Your task to perform on an android device: Open Android settings Image 0: 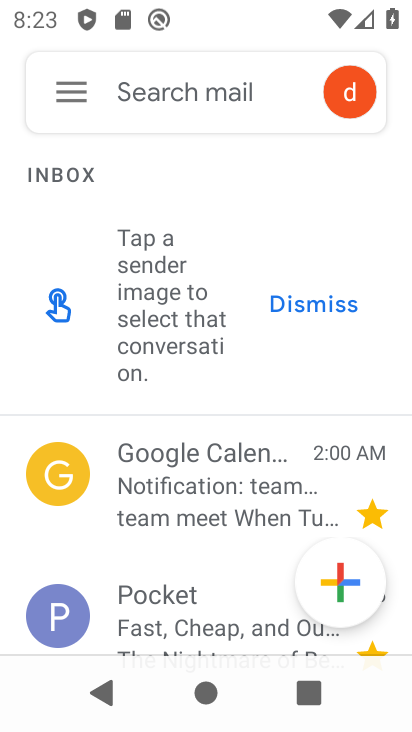
Step 0: press back button
Your task to perform on an android device: Open Android settings Image 1: 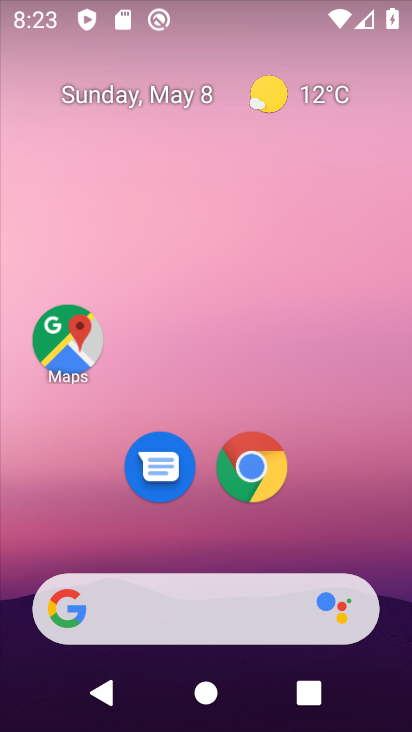
Step 1: drag from (188, 532) to (285, 4)
Your task to perform on an android device: Open Android settings Image 2: 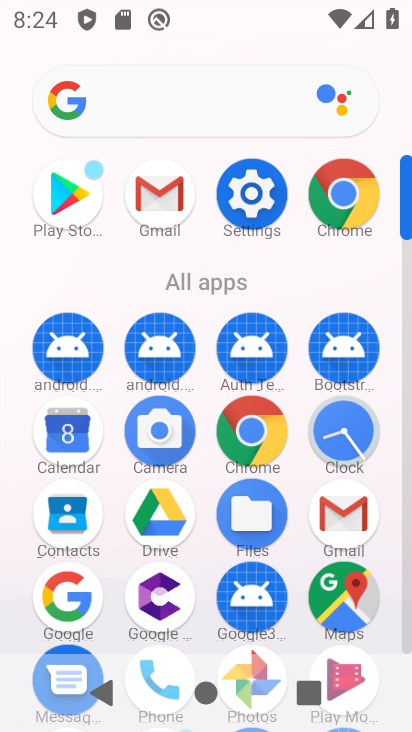
Step 2: click (258, 195)
Your task to perform on an android device: Open Android settings Image 3: 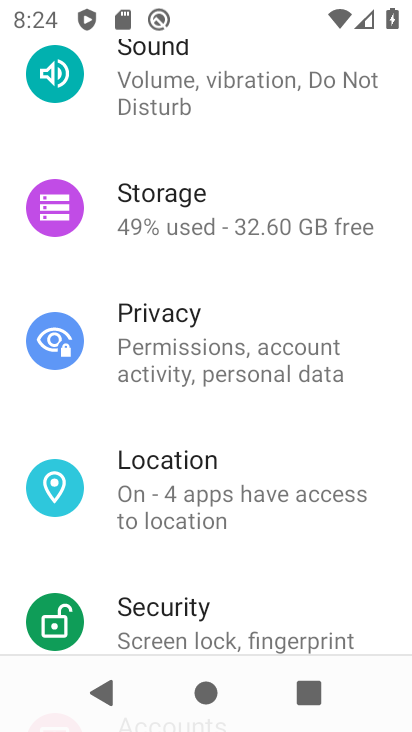
Step 3: drag from (165, 568) to (250, 75)
Your task to perform on an android device: Open Android settings Image 4: 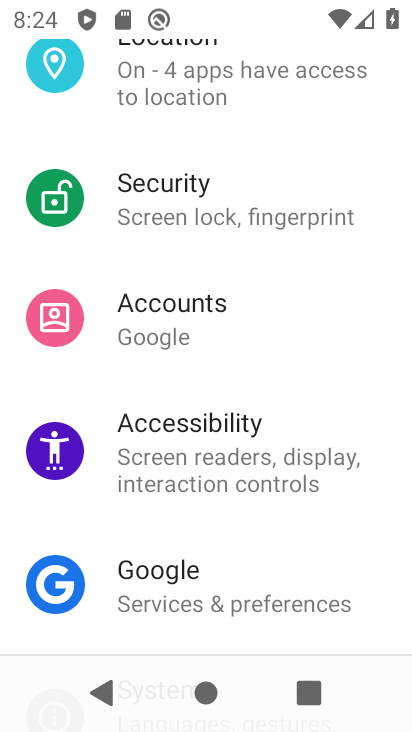
Step 4: drag from (197, 385) to (263, 60)
Your task to perform on an android device: Open Android settings Image 5: 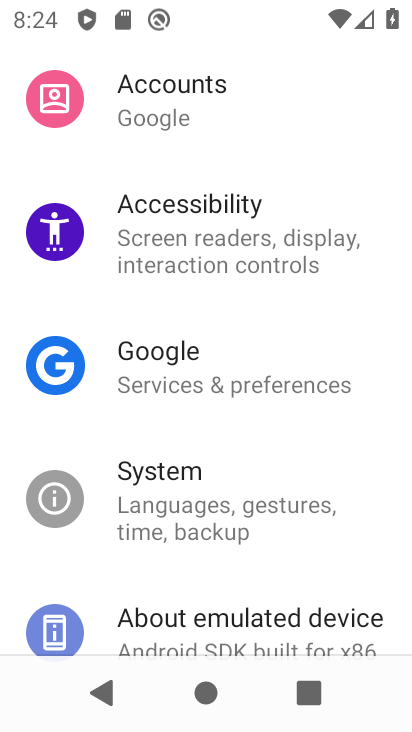
Step 5: drag from (176, 564) to (288, 40)
Your task to perform on an android device: Open Android settings Image 6: 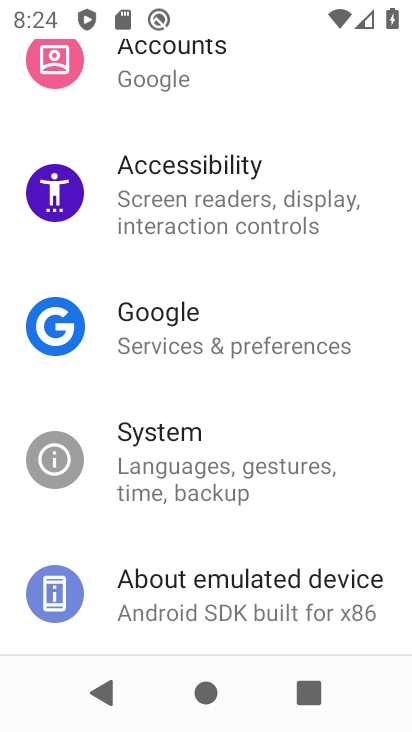
Step 6: click (206, 599)
Your task to perform on an android device: Open Android settings Image 7: 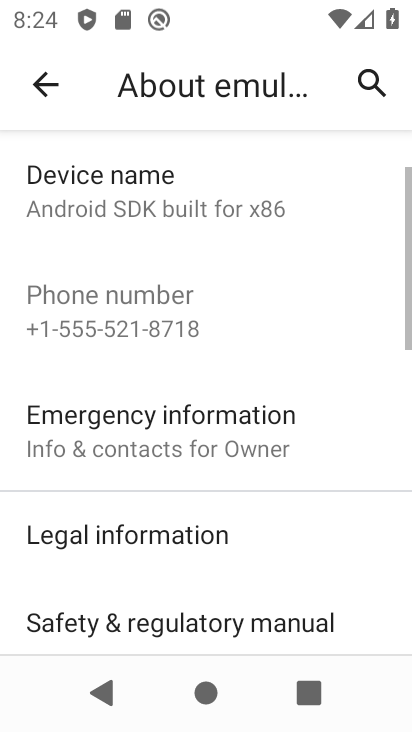
Step 7: drag from (214, 550) to (307, 51)
Your task to perform on an android device: Open Android settings Image 8: 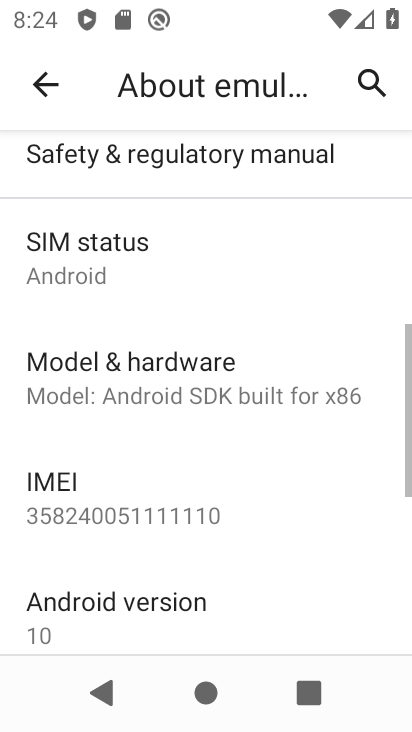
Step 8: click (101, 617)
Your task to perform on an android device: Open Android settings Image 9: 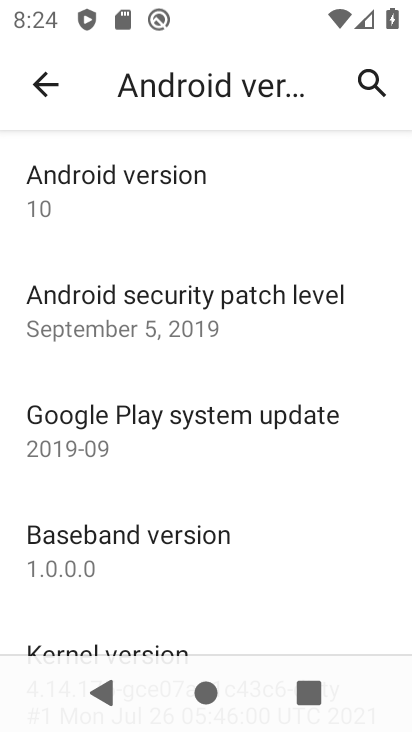
Step 9: task complete